Your task to perform on an android device: search for starred emails in the gmail app Image 0: 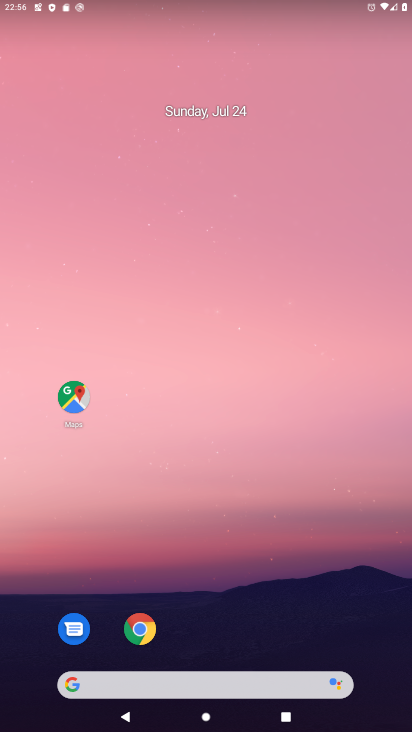
Step 0: drag from (174, 642) to (267, 328)
Your task to perform on an android device: search for starred emails in the gmail app Image 1: 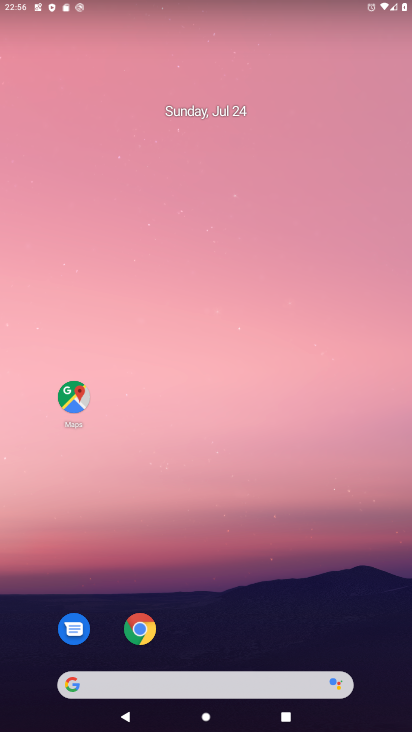
Step 1: drag from (209, 655) to (240, 309)
Your task to perform on an android device: search for starred emails in the gmail app Image 2: 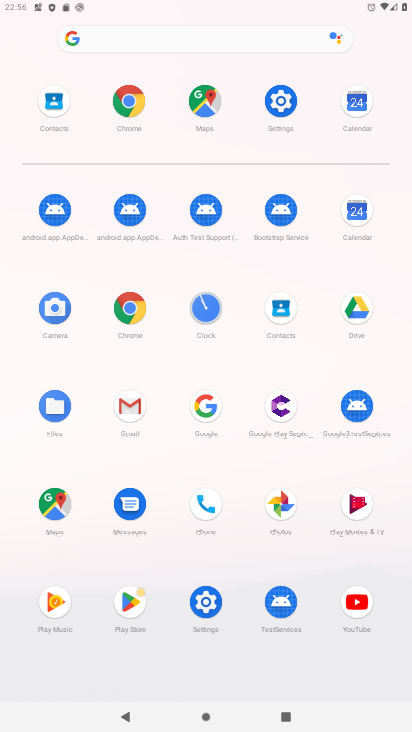
Step 2: click (132, 407)
Your task to perform on an android device: search for starred emails in the gmail app Image 3: 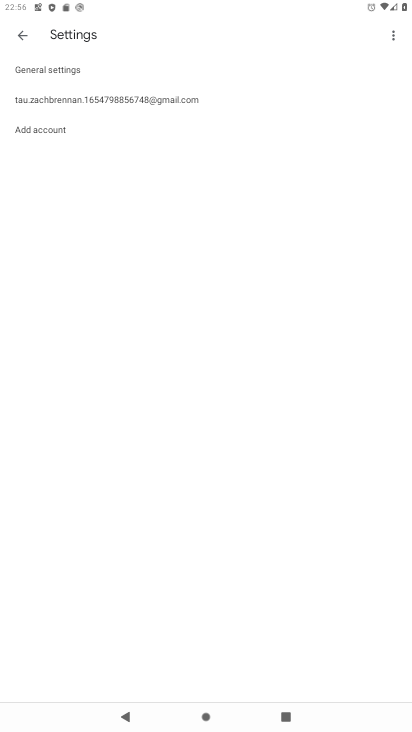
Step 3: click (30, 33)
Your task to perform on an android device: search for starred emails in the gmail app Image 4: 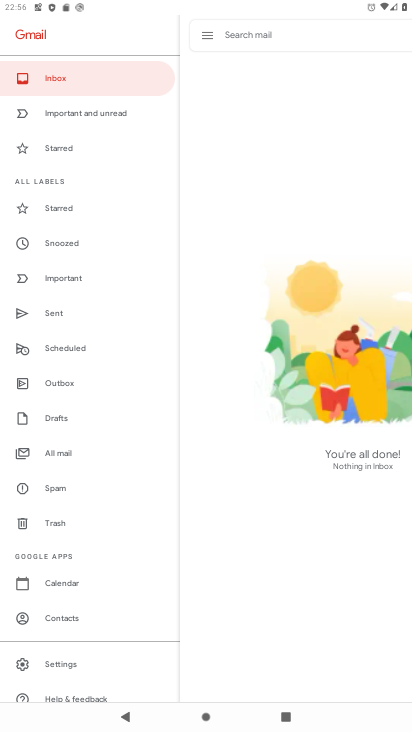
Step 4: click (73, 207)
Your task to perform on an android device: search for starred emails in the gmail app Image 5: 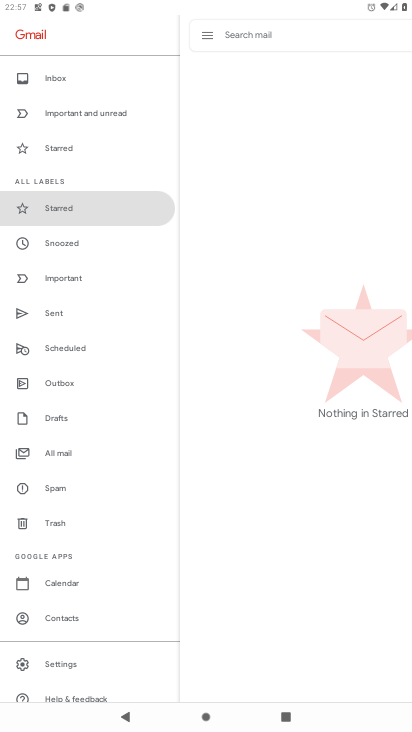
Step 5: task complete